Your task to perform on an android device: Go to Google Image 0: 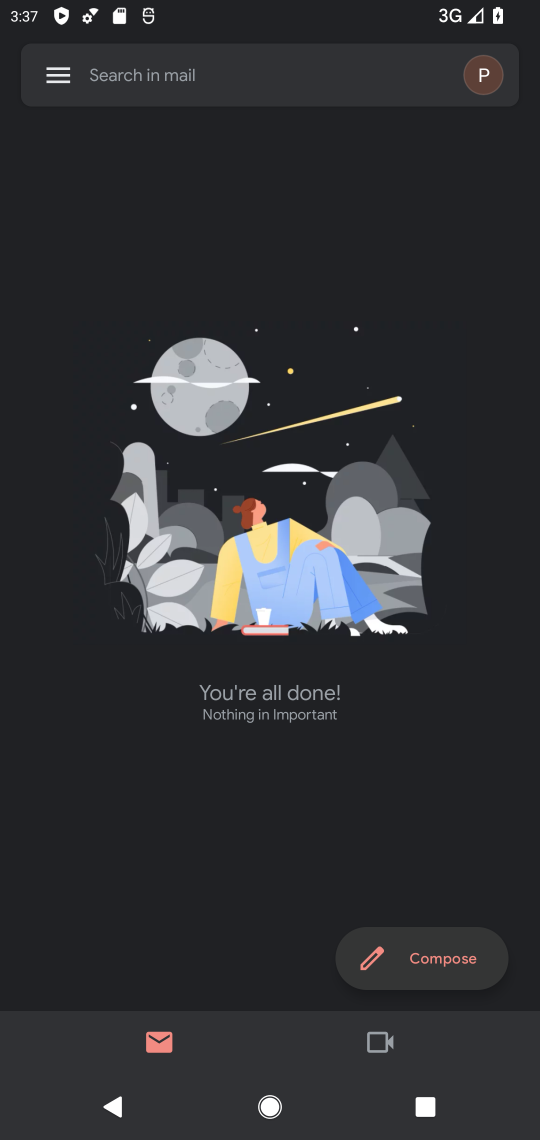
Step 0: press home button
Your task to perform on an android device: Go to Google Image 1: 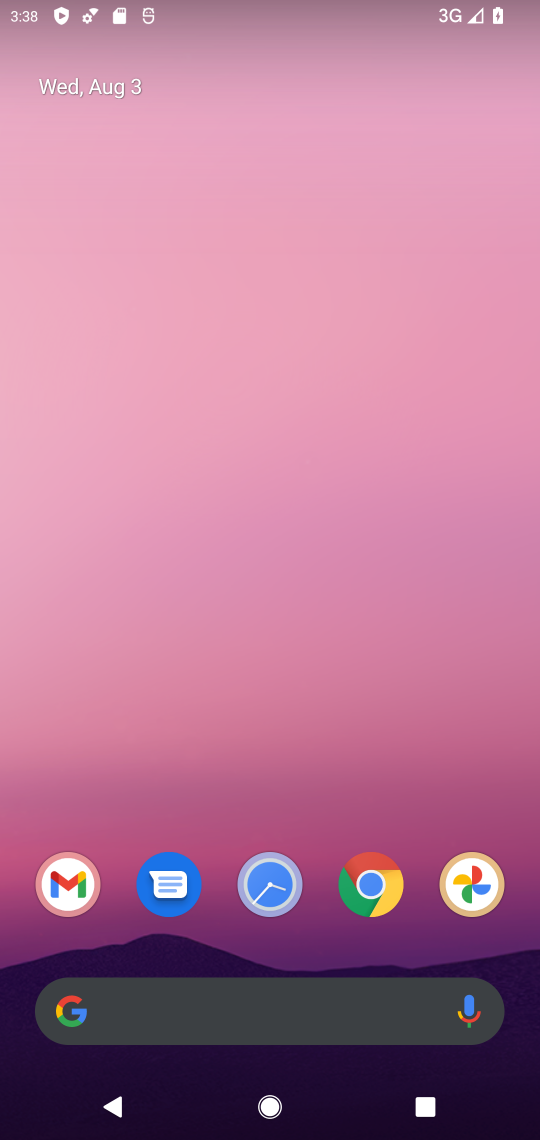
Step 1: click (395, 873)
Your task to perform on an android device: Go to Google Image 2: 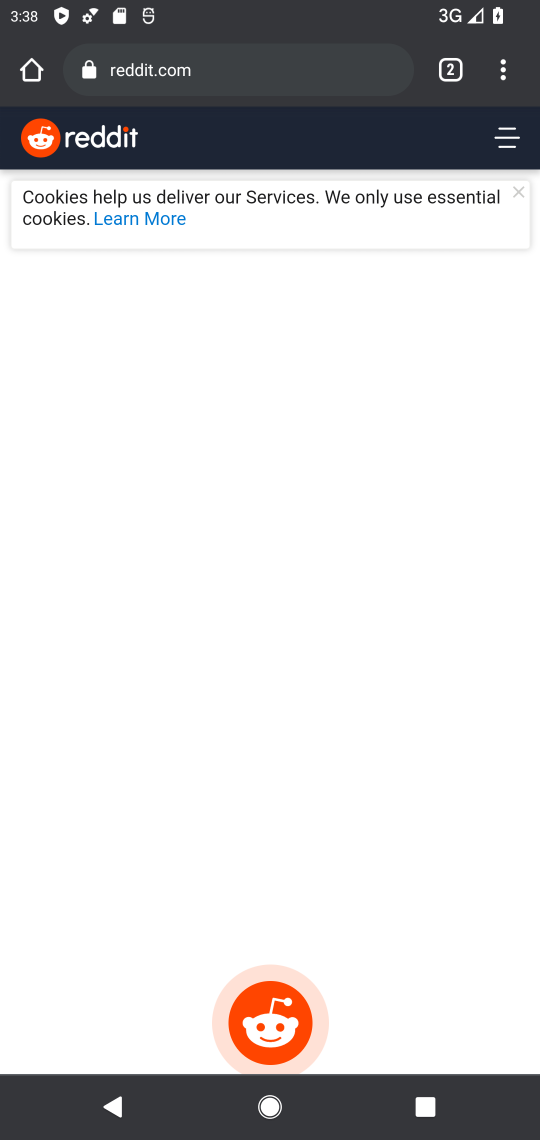
Step 2: click (244, 74)
Your task to perform on an android device: Go to Google Image 3: 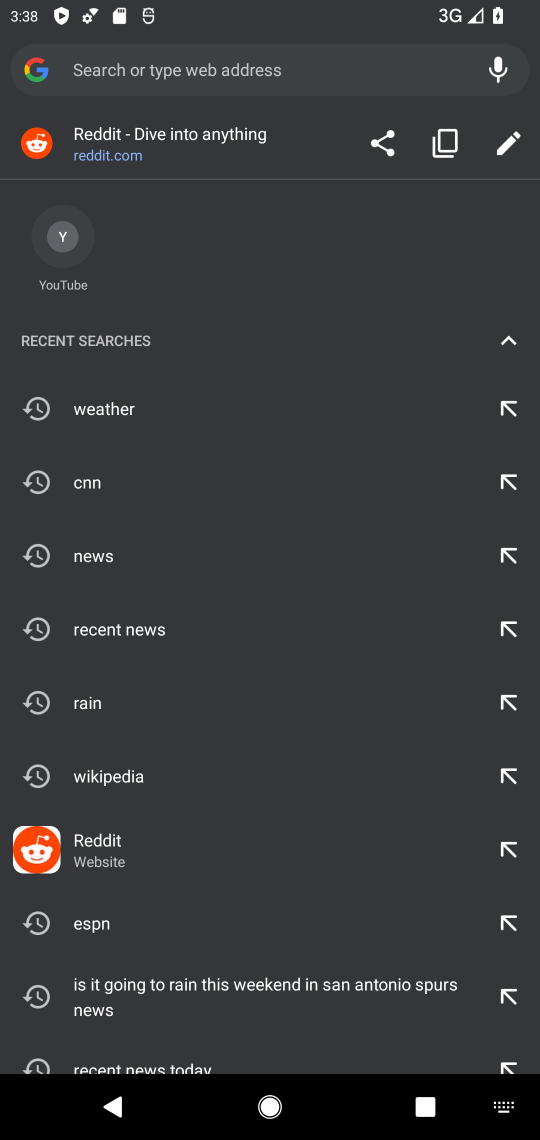
Step 3: type "google.com"
Your task to perform on an android device: Go to Google Image 4: 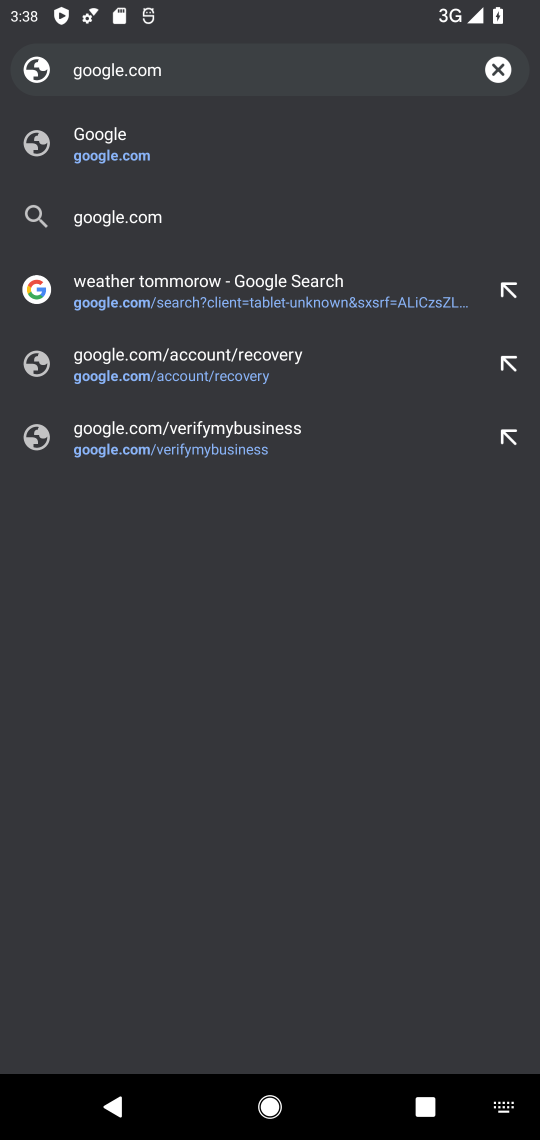
Step 4: click (181, 162)
Your task to perform on an android device: Go to Google Image 5: 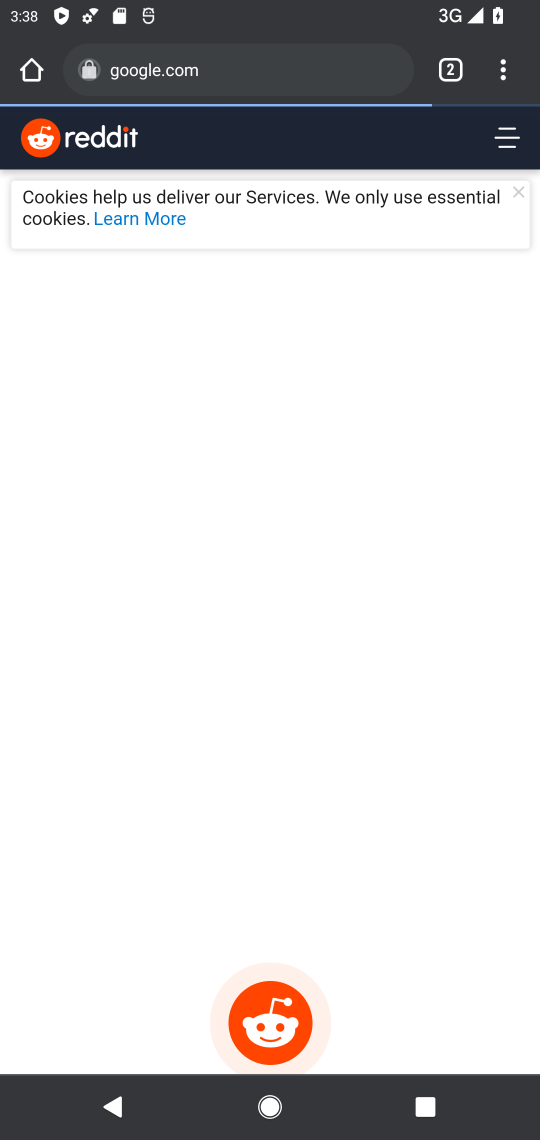
Step 5: task complete